Your task to perform on an android device: See recent photos Image 0: 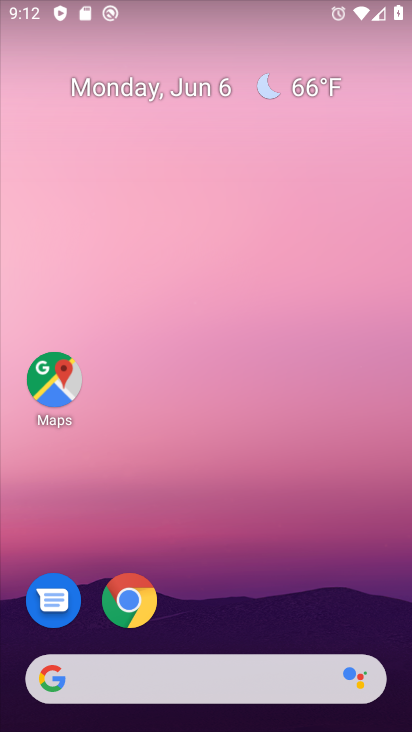
Step 0: drag from (33, 532) to (206, 196)
Your task to perform on an android device: See recent photos Image 1: 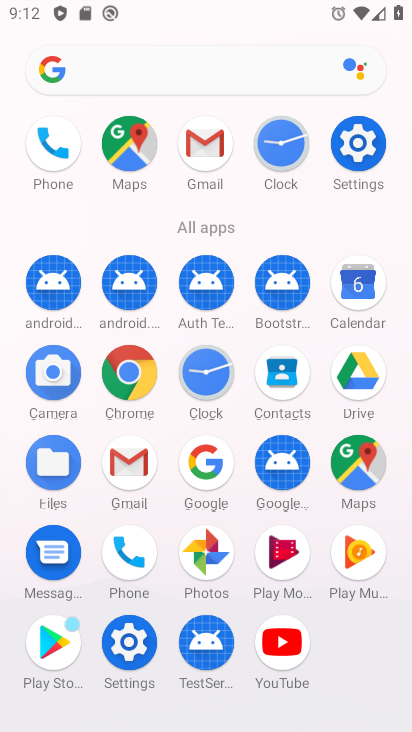
Step 1: click (199, 573)
Your task to perform on an android device: See recent photos Image 2: 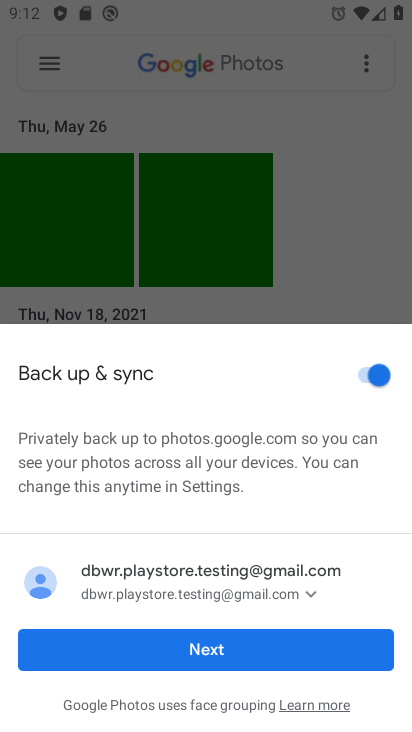
Step 2: click (157, 643)
Your task to perform on an android device: See recent photos Image 3: 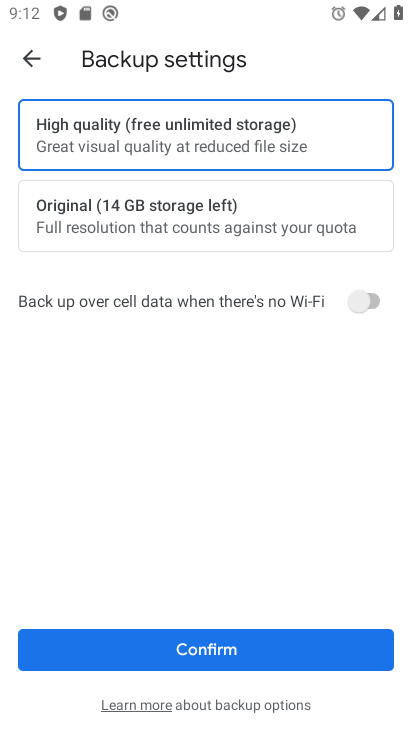
Step 3: click (222, 647)
Your task to perform on an android device: See recent photos Image 4: 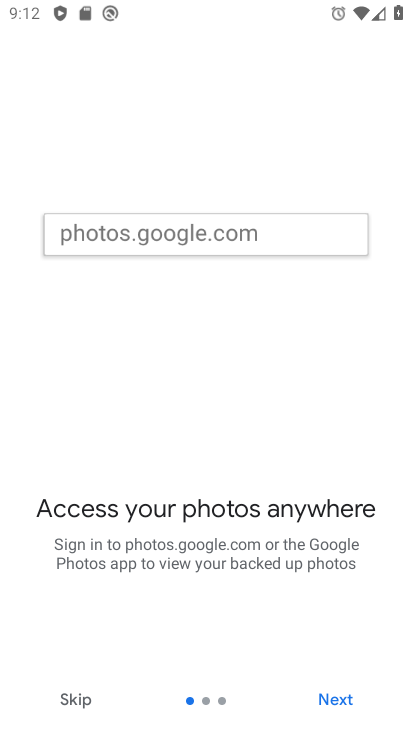
Step 4: click (67, 704)
Your task to perform on an android device: See recent photos Image 5: 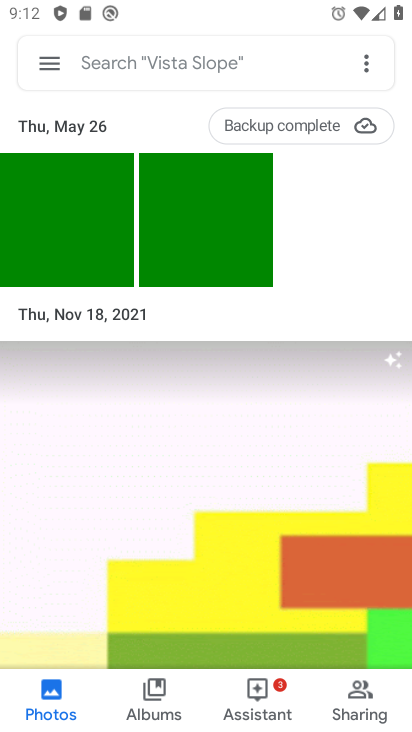
Step 5: task complete